Your task to perform on an android device: Open Amazon Image 0: 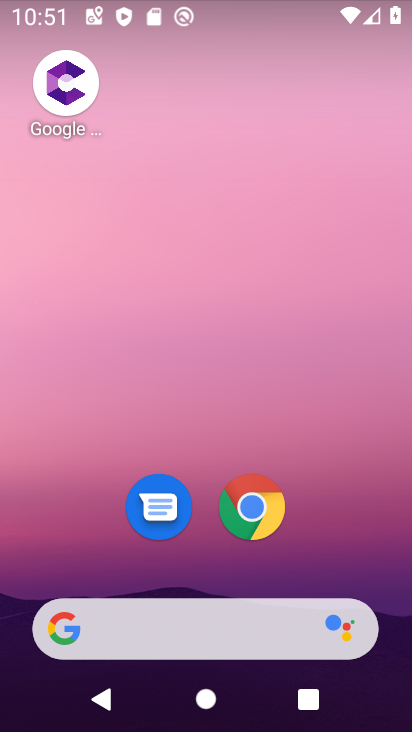
Step 0: click (262, 524)
Your task to perform on an android device: Open Amazon Image 1: 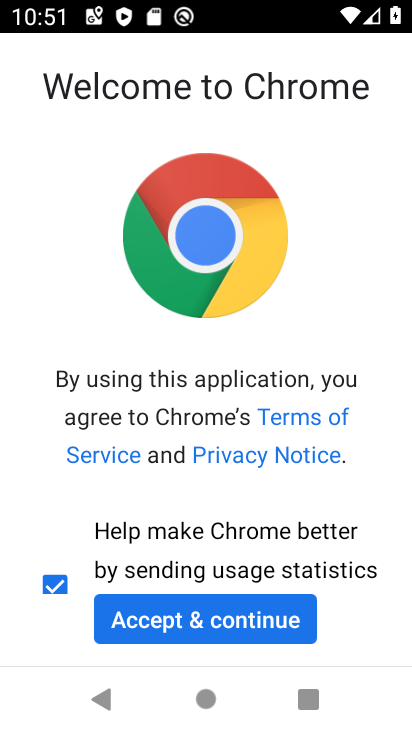
Step 1: click (192, 627)
Your task to perform on an android device: Open Amazon Image 2: 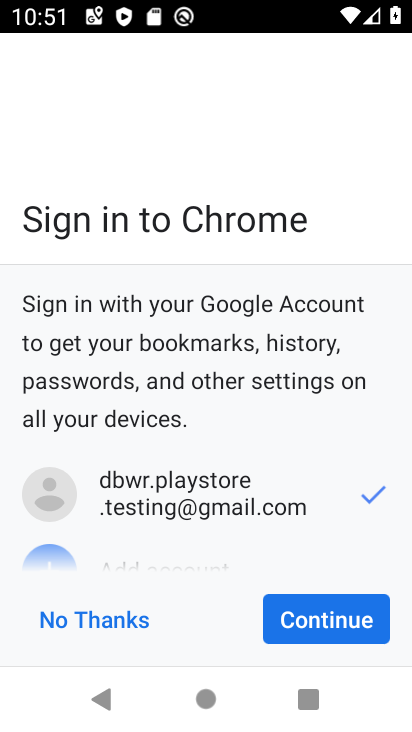
Step 2: click (300, 621)
Your task to perform on an android device: Open Amazon Image 3: 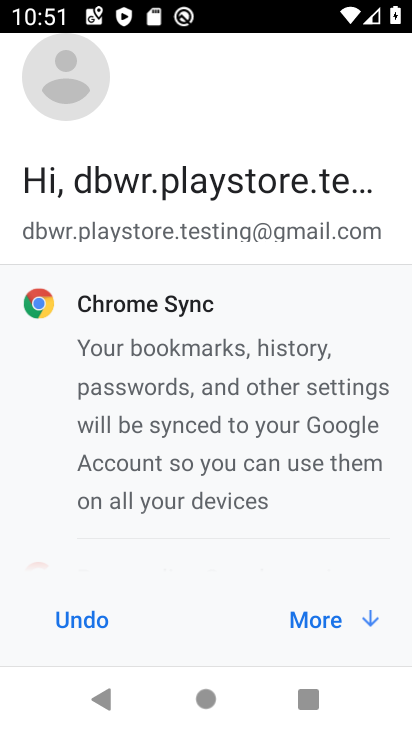
Step 3: click (322, 617)
Your task to perform on an android device: Open Amazon Image 4: 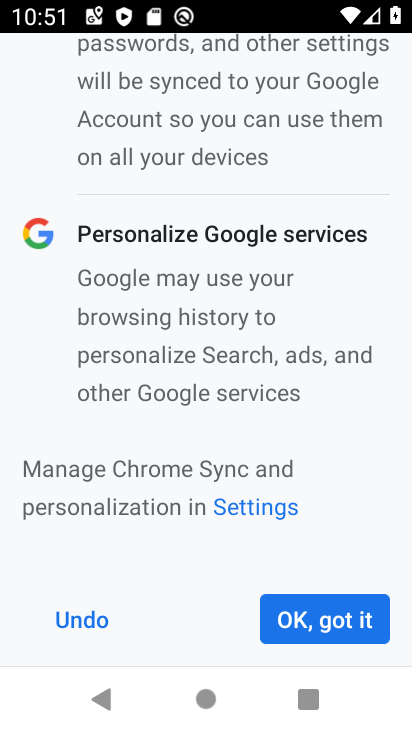
Step 4: click (322, 617)
Your task to perform on an android device: Open Amazon Image 5: 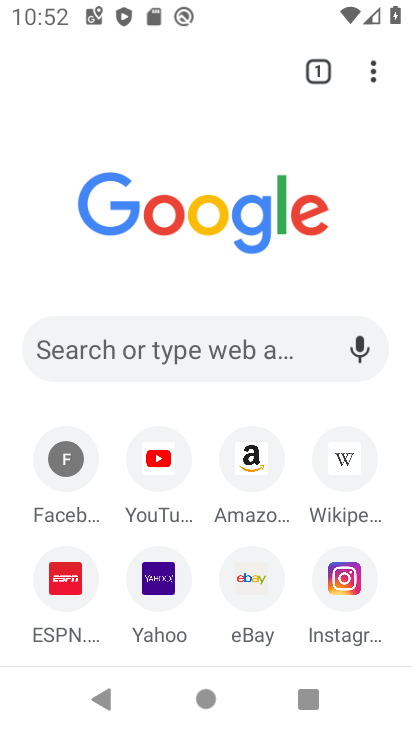
Step 5: click (248, 456)
Your task to perform on an android device: Open Amazon Image 6: 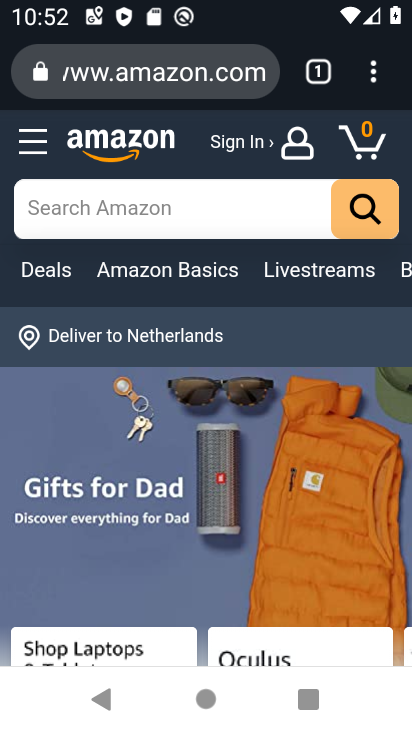
Step 6: task complete